Your task to perform on an android device: open a bookmark in the chrome app Image 0: 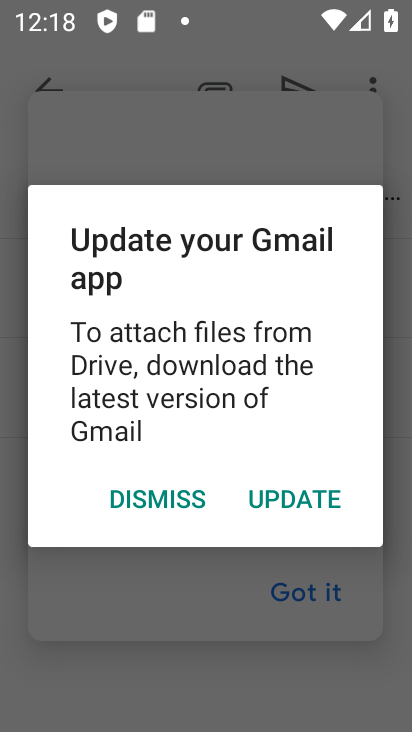
Step 0: click (153, 504)
Your task to perform on an android device: open a bookmark in the chrome app Image 1: 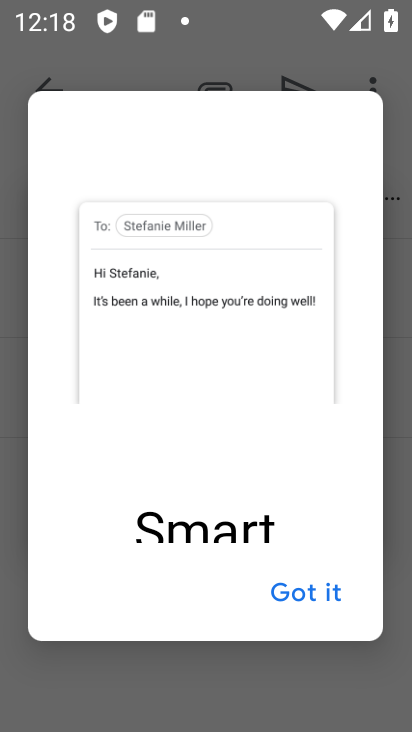
Step 1: click (293, 596)
Your task to perform on an android device: open a bookmark in the chrome app Image 2: 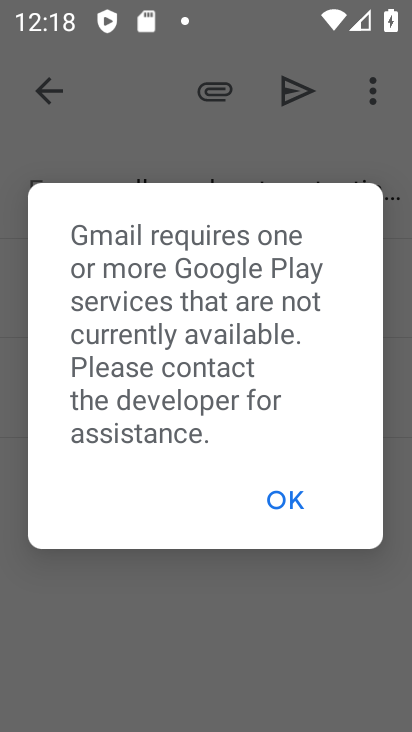
Step 2: press home button
Your task to perform on an android device: open a bookmark in the chrome app Image 3: 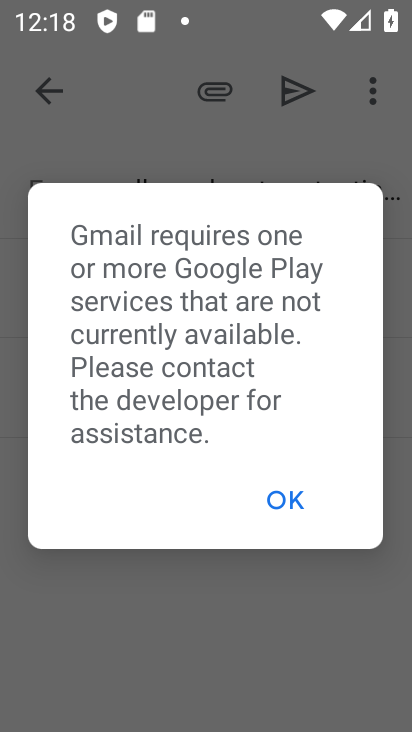
Step 3: press home button
Your task to perform on an android device: open a bookmark in the chrome app Image 4: 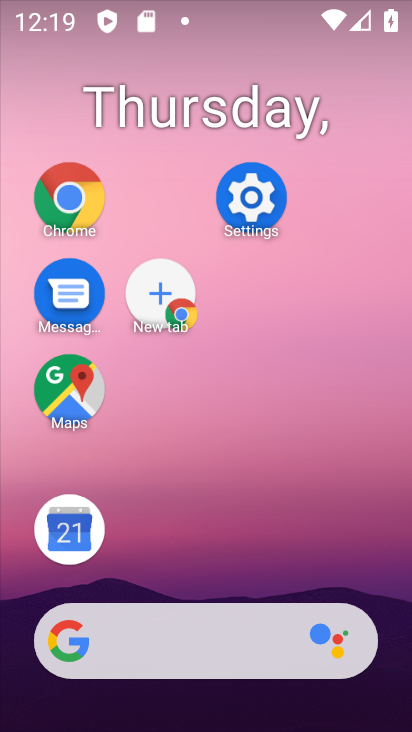
Step 4: drag from (264, 605) to (174, 96)
Your task to perform on an android device: open a bookmark in the chrome app Image 5: 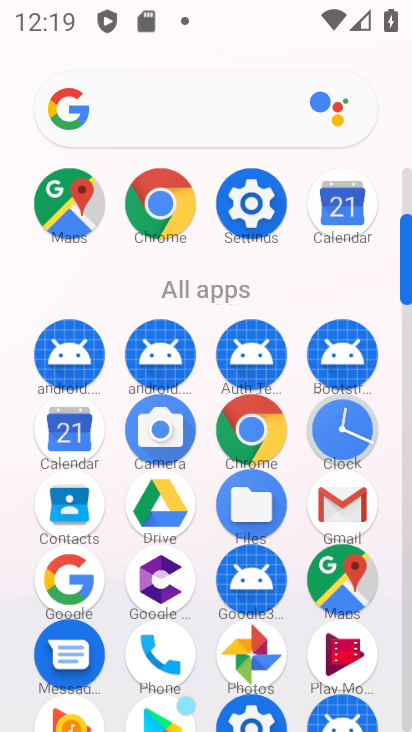
Step 5: click (155, 210)
Your task to perform on an android device: open a bookmark in the chrome app Image 6: 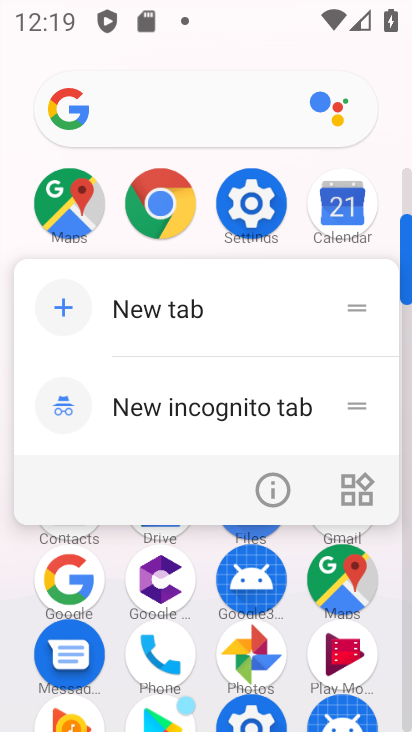
Step 6: click (156, 213)
Your task to perform on an android device: open a bookmark in the chrome app Image 7: 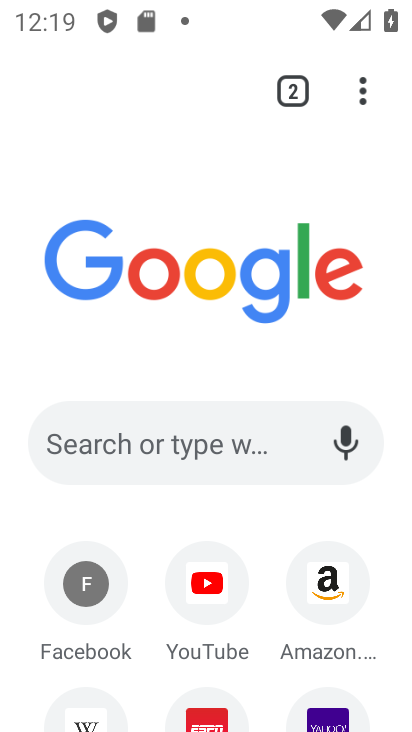
Step 7: drag from (361, 98) to (149, 353)
Your task to perform on an android device: open a bookmark in the chrome app Image 8: 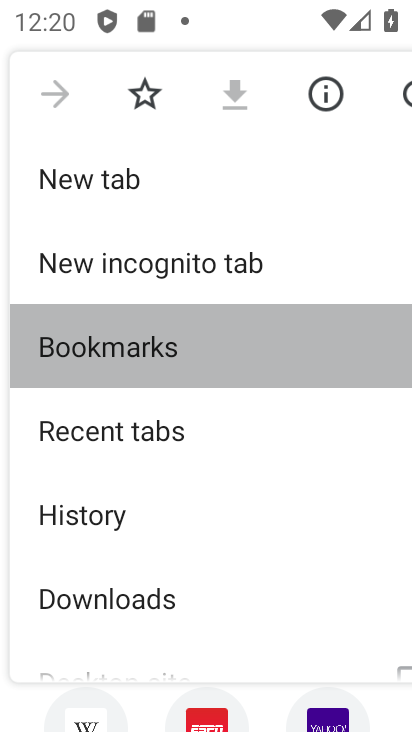
Step 8: click (149, 353)
Your task to perform on an android device: open a bookmark in the chrome app Image 9: 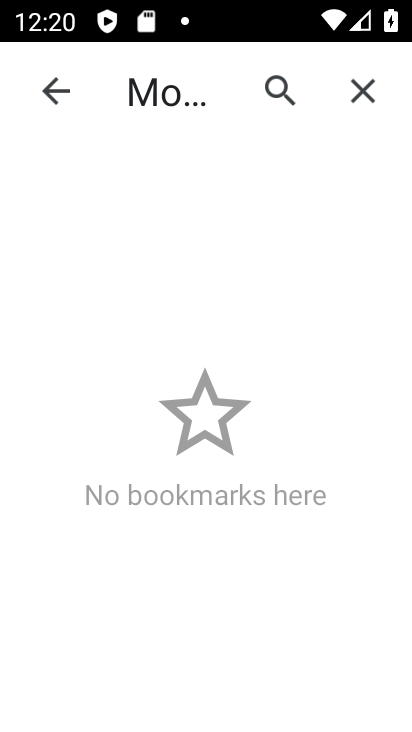
Step 9: press home button
Your task to perform on an android device: open a bookmark in the chrome app Image 10: 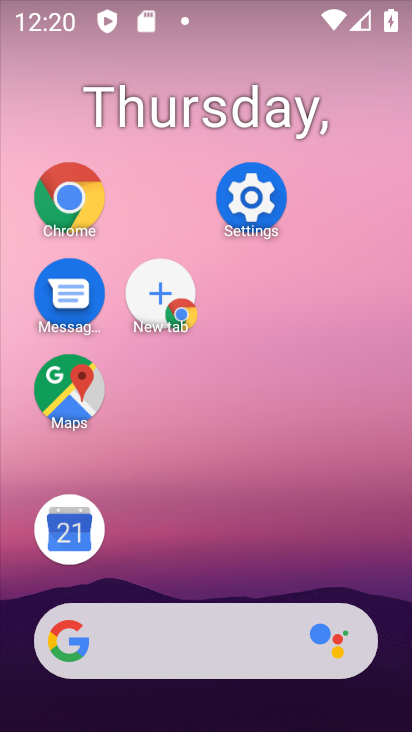
Step 10: drag from (213, 466) to (155, 96)
Your task to perform on an android device: open a bookmark in the chrome app Image 11: 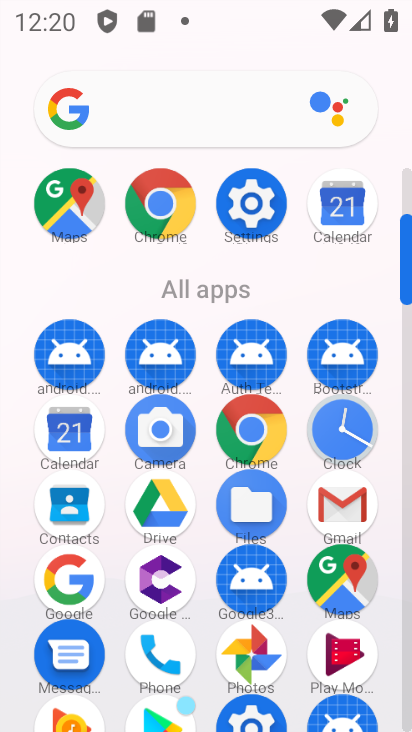
Step 11: click (166, 210)
Your task to perform on an android device: open a bookmark in the chrome app Image 12: 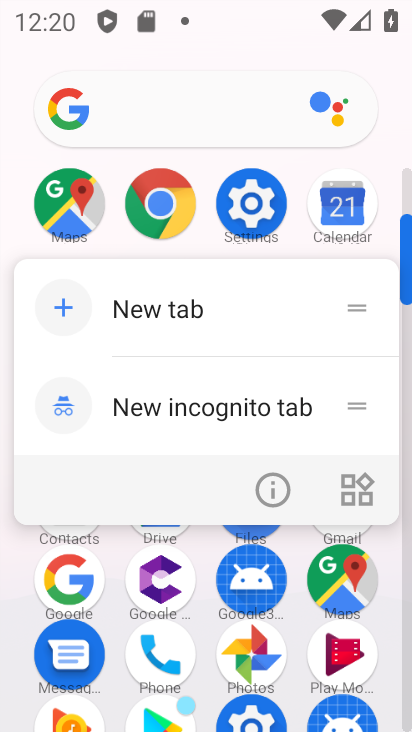
Step 12: drag from (167, 210) to (170, 274)
Your task to perform on an android device: open a bookmark in the chrome app Image 13: 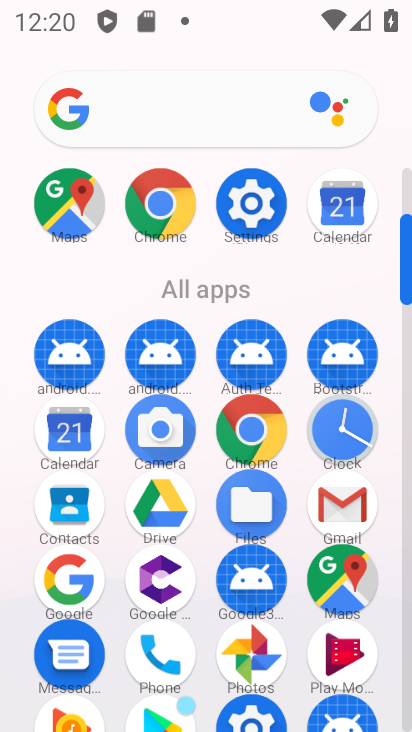
Step 13: click (163, 197)
Your task to perform on an android device: open a bookmark in the chrome app Image 14: 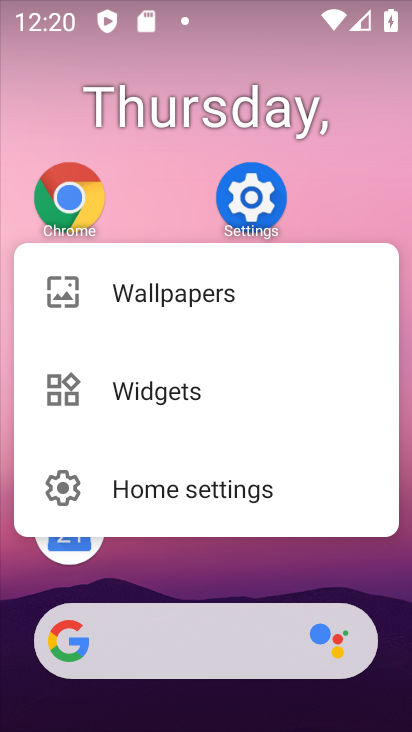
Step 14: click (346, 183)
Your task to perform on an android device: open a bookmark in the chrome app Image 15: 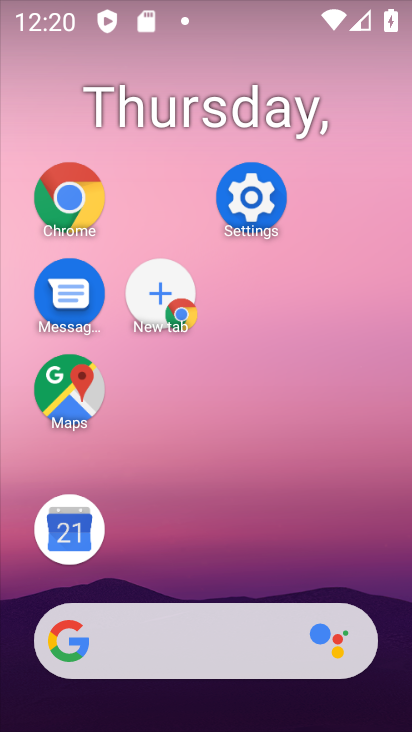
Step 15: drag from (330, 558) to (202, 10)
Your task to perform on an android device: open a bookmark in the chrome app Image 16: 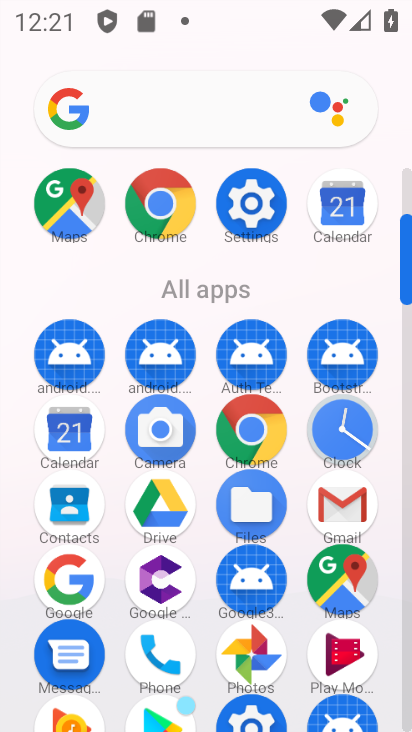
Step 16: click (255, 211)
Your task to perform on an android device: open a bookmark in the chrome app Image 17: 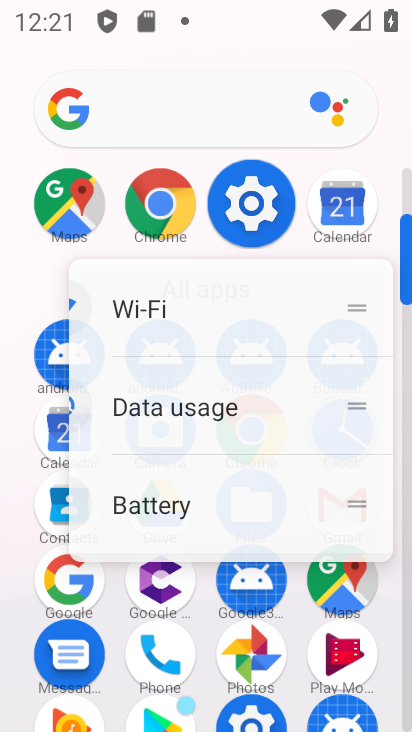
Step 17: click (255, 211)
Your task to perform on an android device: open a bookmark in the chrome app Image 18: 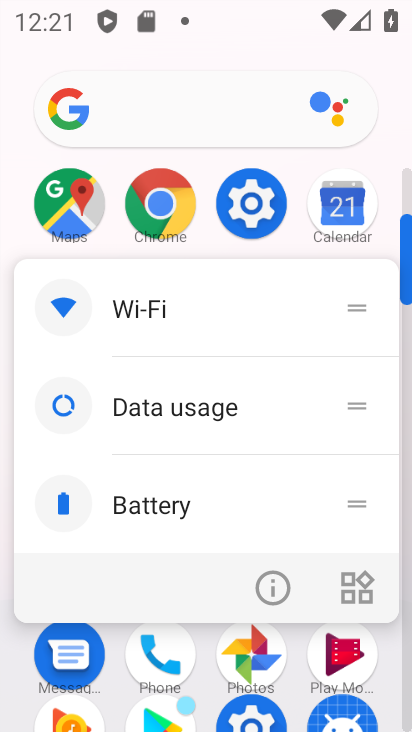
Step 18: click (156, 219)
Your task to perform on an android device: open a bookmark in the chrome app Image 19: 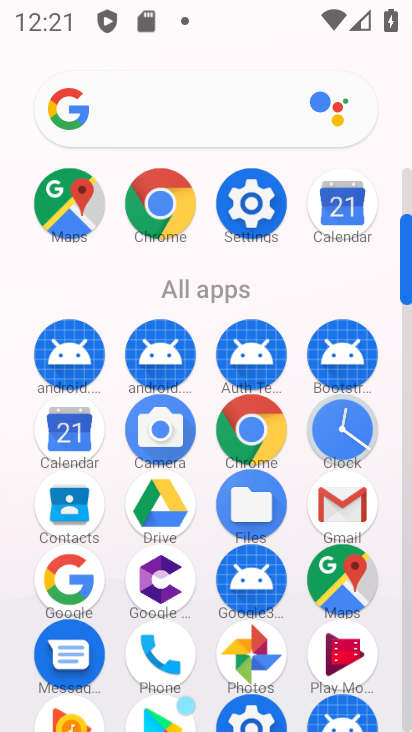
Step 19: click (156, 219)
Your task to perform on an android device: open a bookmark in the chrome app Image 20: 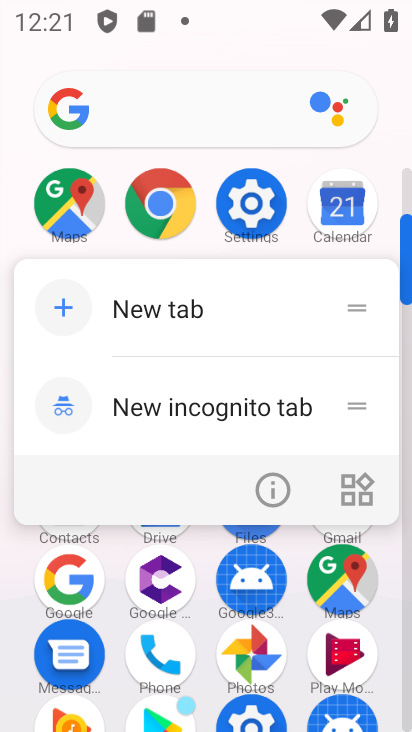
Step 20: click (163, 206)
Your task to perform on an android device: open a bookmark in the chrome app Image 21: 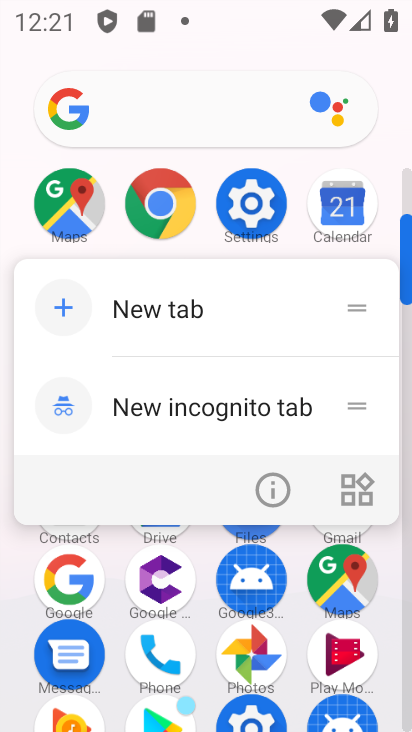
Step 21: click (161, 223)
Your task to perform on an android device: open a bookmark in the chrome app Image 22: 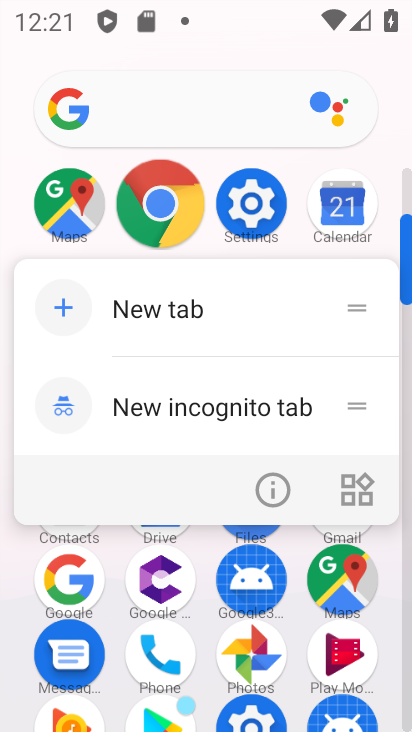
Step 22: click (161, 220)
Your task to perform on an android device: open a bookmark in the chrome app Image 23: 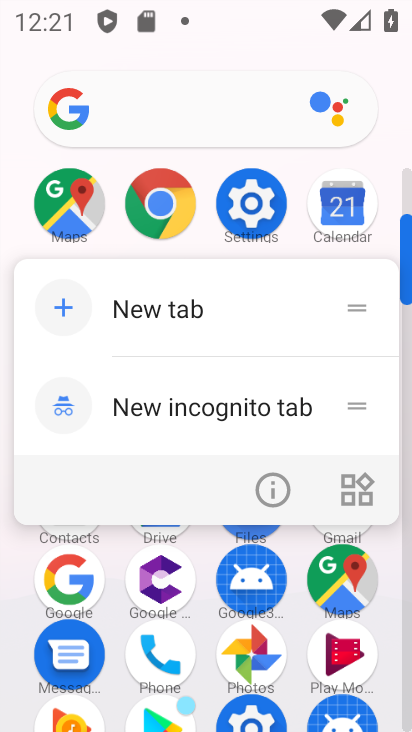
Step 23: click (146, 313)
Your task to perform on an android device: open a bookmark in the chrome app Image 24: 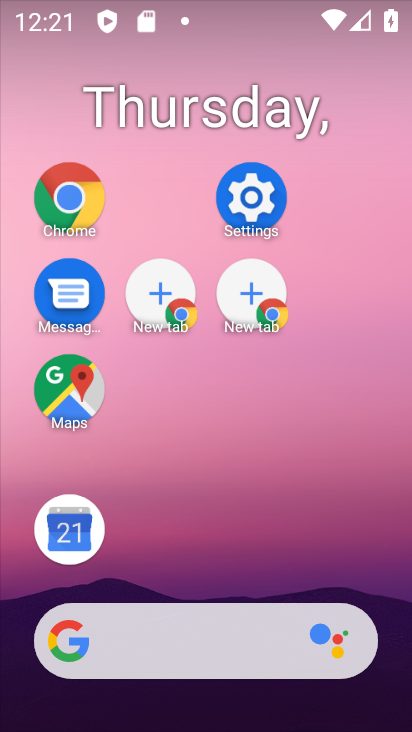
Step 24: drag from (346, 622) to (119, 211)
Your task to perform on an android device: open a bookmark in the chrome app Image 25: 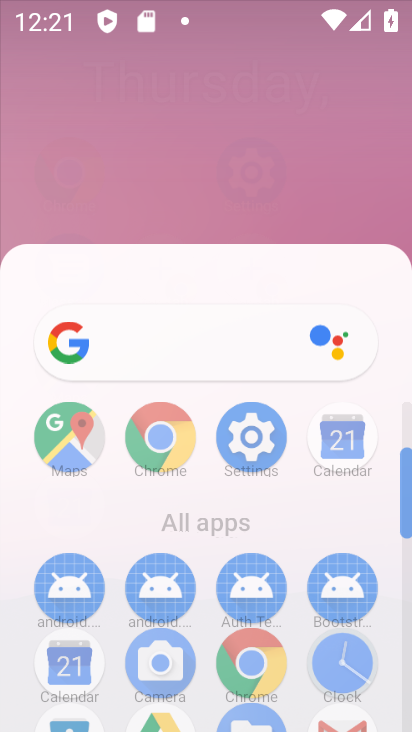
Step 25: drag from (161, 341) to (96, 140)
Your task to perform on an android device: open a bookmark in the chrome app Image 26: 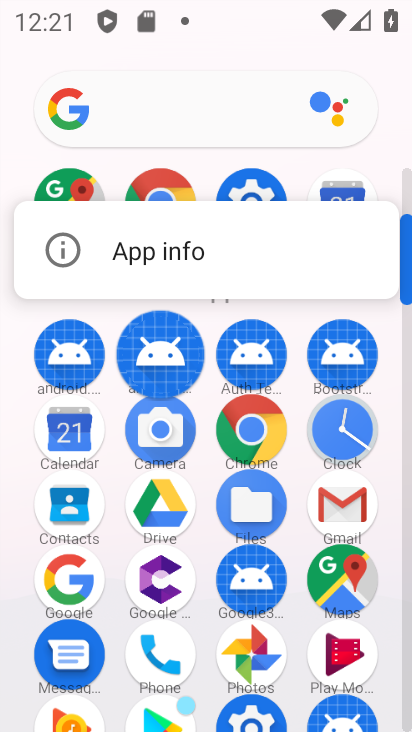
Step 26: click (162, 331)
Your task to perform on an android device: open a bookmark in the chrome app Image 27: 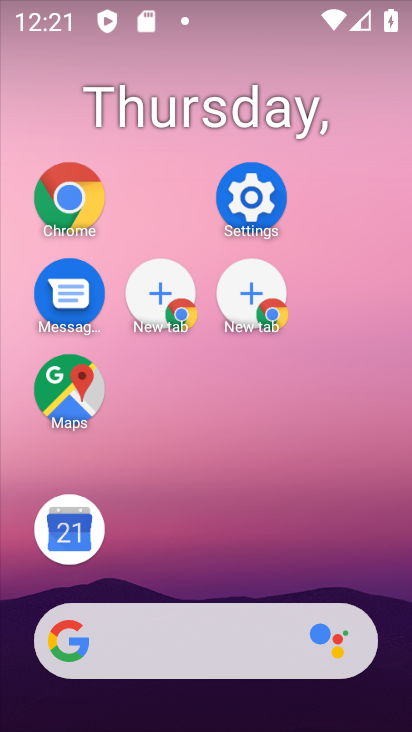
Step 27: drag from (339, 615) to (137, 217)
Your task to perform on an android device: open a bookmark in the chrome app Image 28: 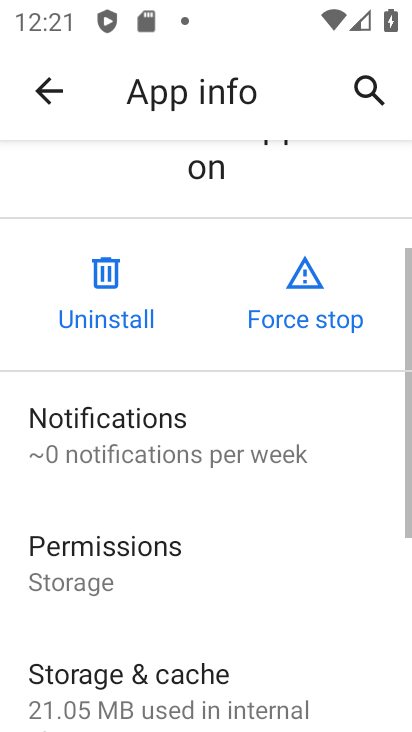
Step 28: drag from (291, 449) to (125, 86)
Your task to perform on an android device: open a bookmark in the chrome app Image 29: 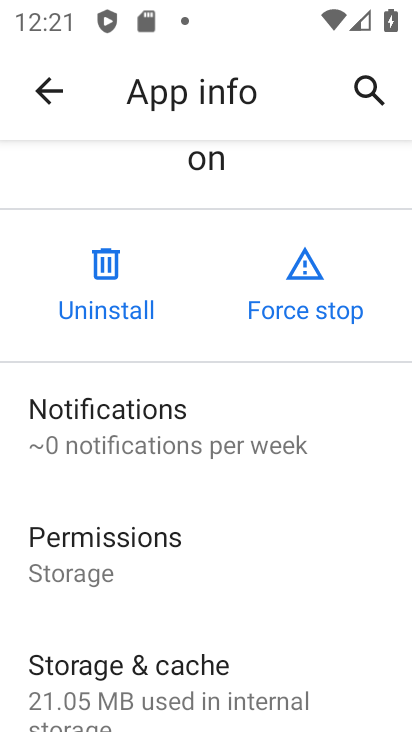
Step 29: click (41, 92)
Your task to perform on an android device: open a bookmark in the chrome app Image 30: 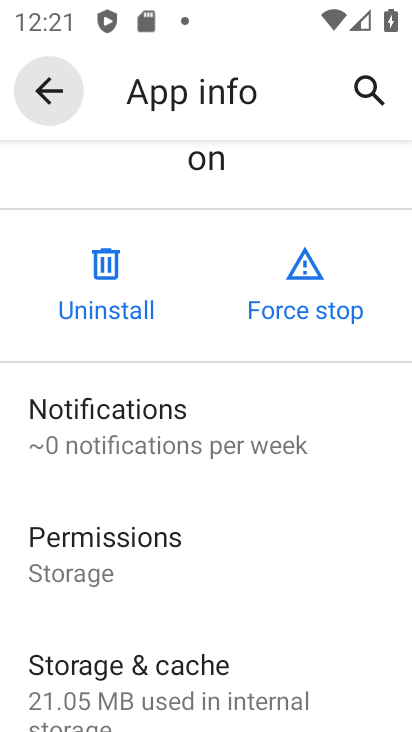
Step 30: click (41, 92)
Your task to perform on an android device: open a bookmark in the chrome app Image 31: 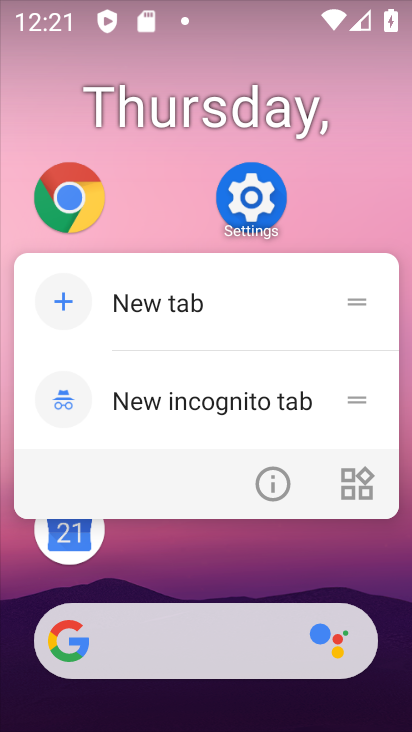
Step 31: drag from (233, 525) to (118, 115)
Your task to perform on an android device: open a bookmark in the chrome app Image 32: 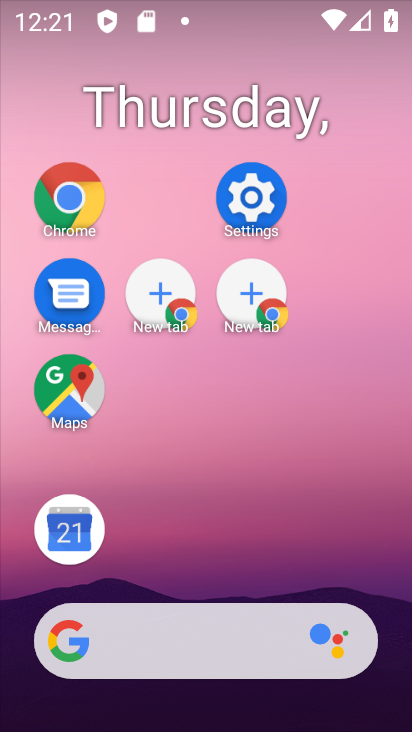
Step 32: drag from (264, 448) to (121, 129)
Your task to perform on an android device: open a bookmark in the chrome app Image 33: 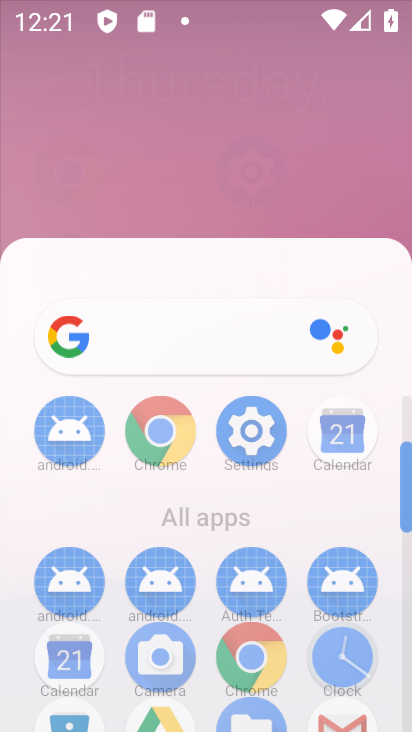
Step 33: drag from (259, 233) to (201, 69)
Your task to perform on an android device: open a bookmark in the chrome app Image 34: 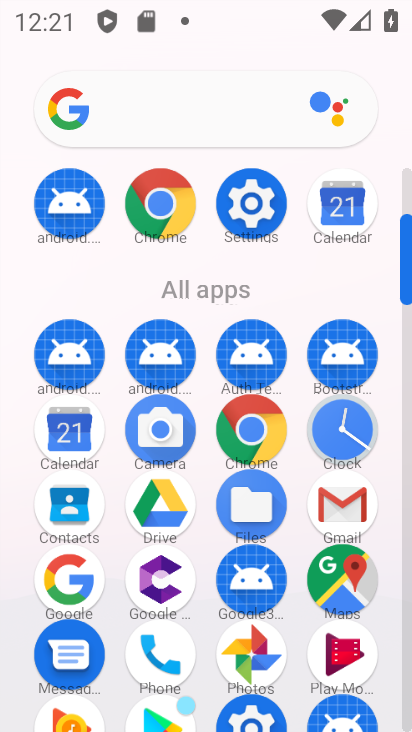
Step 34: click (266, 422)
Your task to perform on an android device: open a bookmark in the chrome app Image 35: 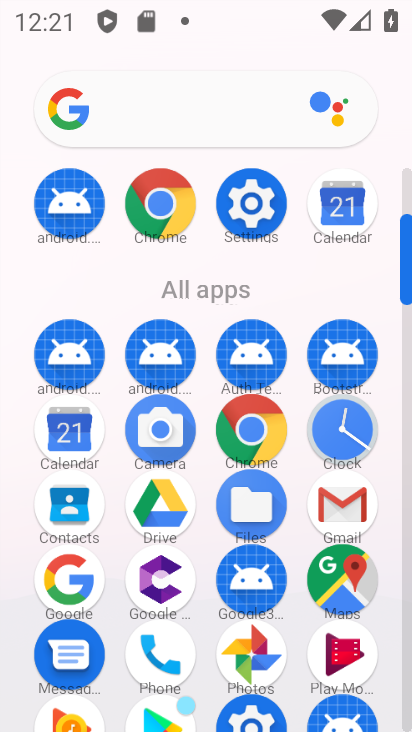
Step 35: click (249, 435)
Your task to perform on an android device: open a bookmark in the chrome app Image 36: 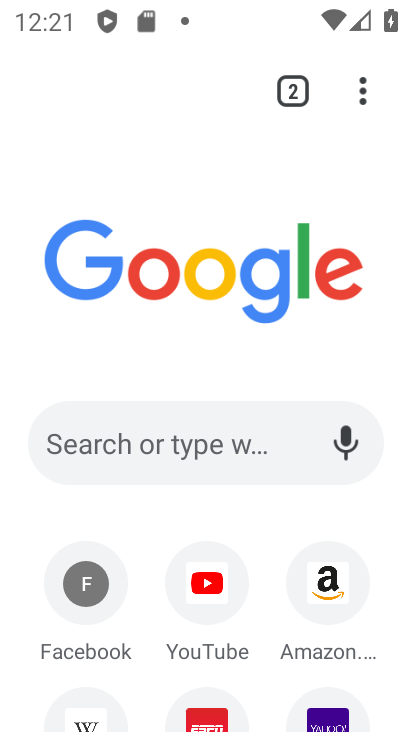
Step 36: drag from (358, 97) to (138, 349)
Your task to perform on an android device: open a bookmark in the chrome app Image 37: 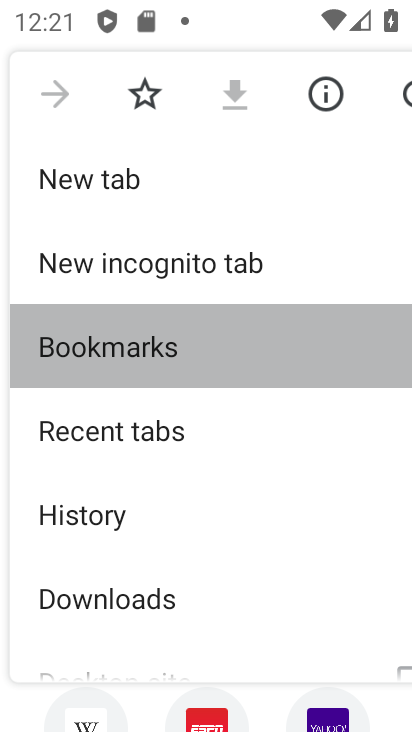
Step 37: click (148, 340)
Your task to perform on an android device: open a bookmark in the chrome app Image 38: 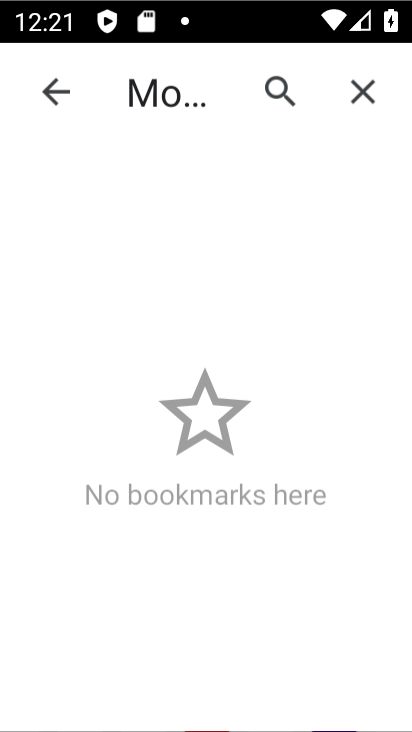
Step 38: click (153, 339)
Your task to perform on an android device: open a bookmark in the chrome app Image 39: 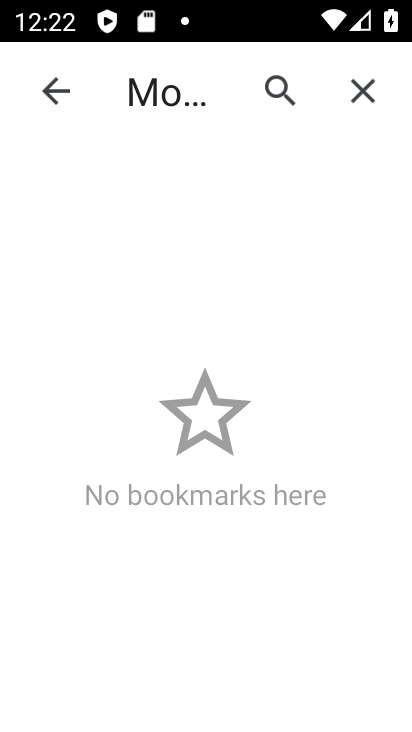
Step 39: task complete